Your task to perform on an android device: Show me popular games on the Play Store Image 0: 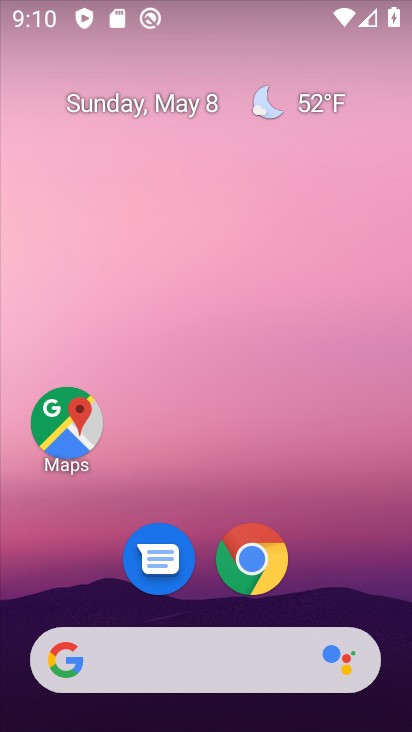
Step 0: drag from (338, 594) to (340, 60)
Your task to perform on an android device: Show me popular games on the Play Store Image 1: 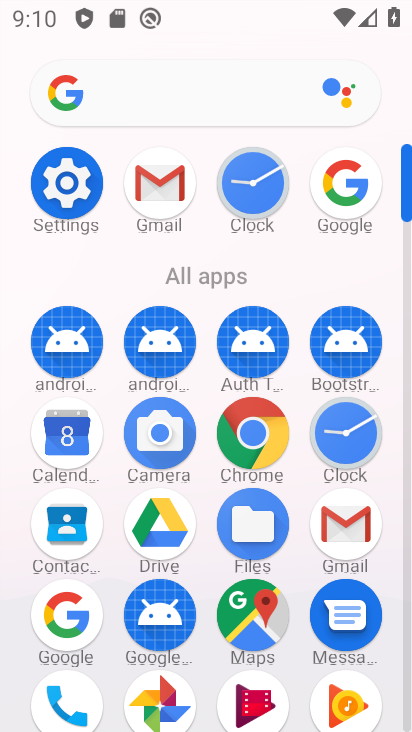
Step 1: drag from (206, 568) to (203, 248)
Your task to perform on an android device: Show me popular games on the Play Store Image 2: 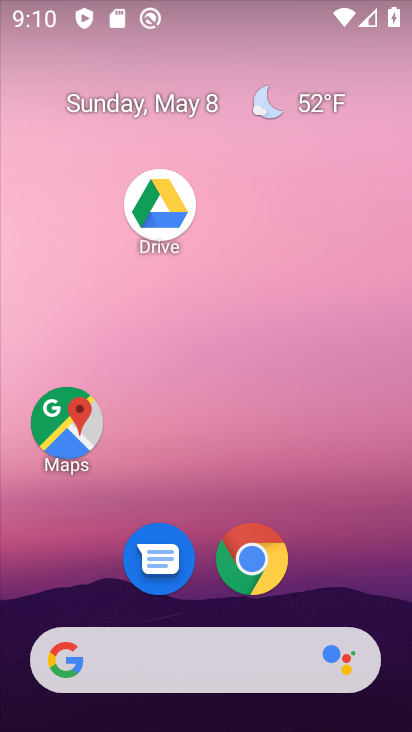
Step 2: drag from (282, 434) to (267, 78)
Your task to perform on an android device: Show me popular games on the Play Store Image 3: 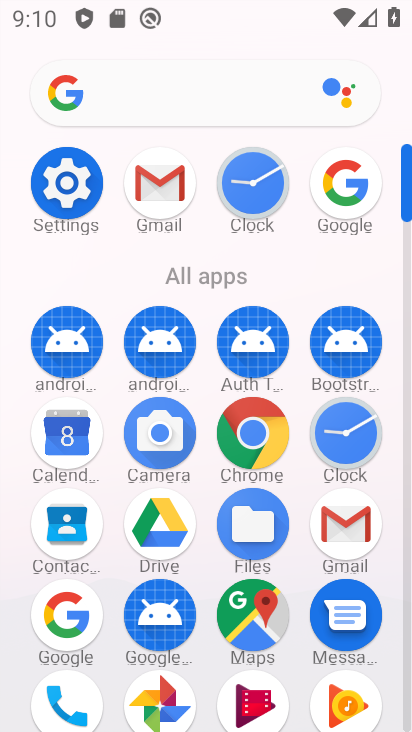
Step 3: drag from (213, 272) to (207, 46)
Your task to perform on an android device: Show me popular games on the Play Store Image 4: 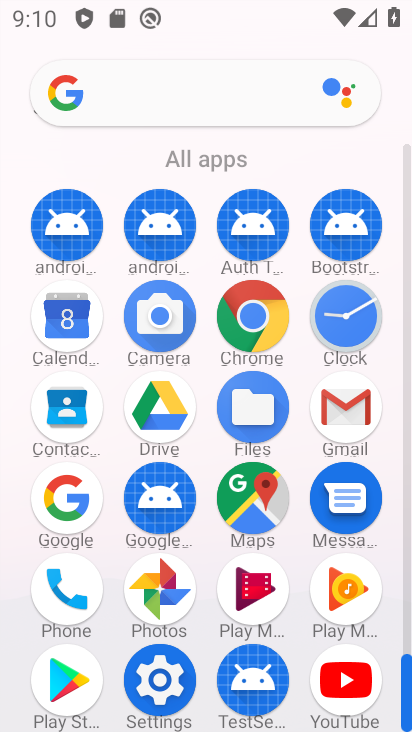
Step 4: click (67, 683)
Your task to perform on an android device: Show me popular games on the Play Store Image 5: 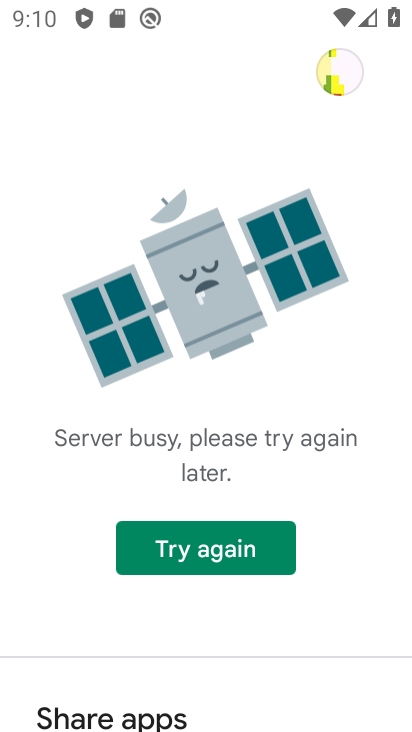
Step 5: click (215, 549)
Your task to perform on an android device: Show me popular games on the Play Store Image 6: 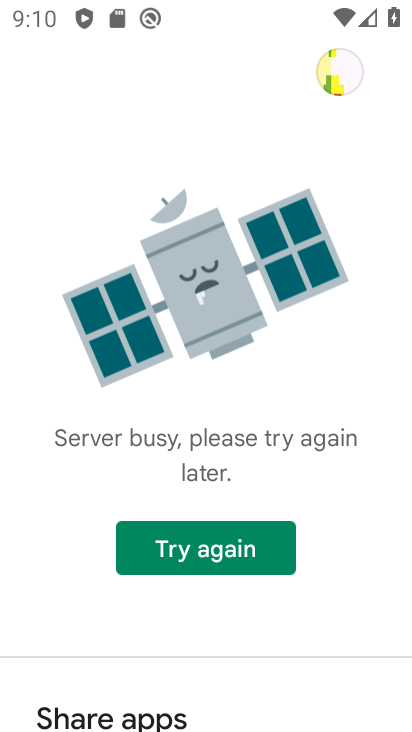
Step 6: task complete